Your task to perform on an android device: Clear all items from cart on bestbuy. Add usb-c to the cart on bestbuy Image 0: 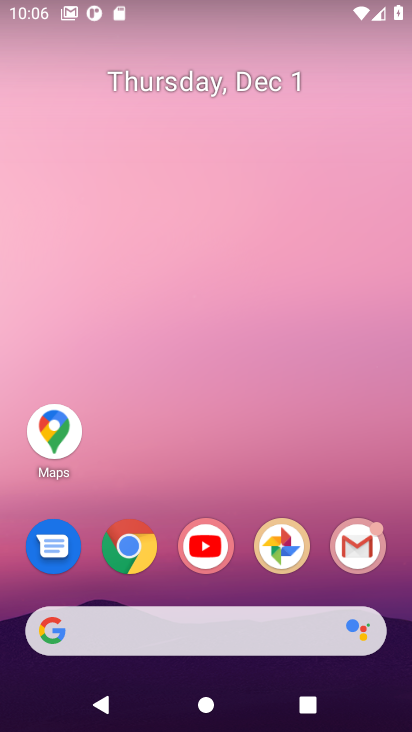
Step 0: click (134, 549)
Your task to perform on an android device: Clear all items from cart on bestbuy. Add usb-c to the cart on bestbuy Image 1: 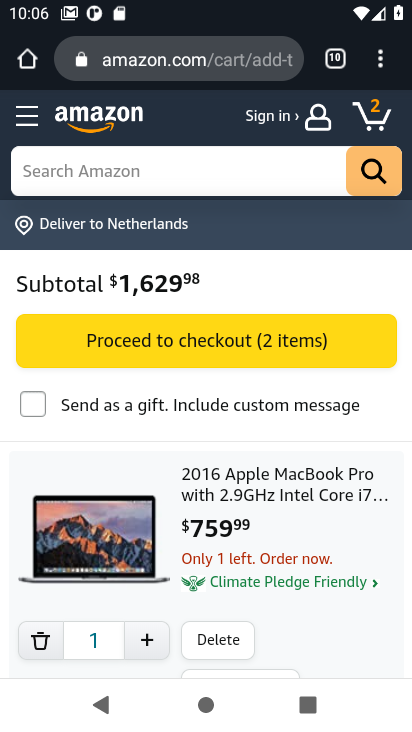
Step 1: click (191, 71)
Your task to perform on an android device: Clear all items from cart on bestbuy. Add usb-c to the cart on bestbuy Image 2: 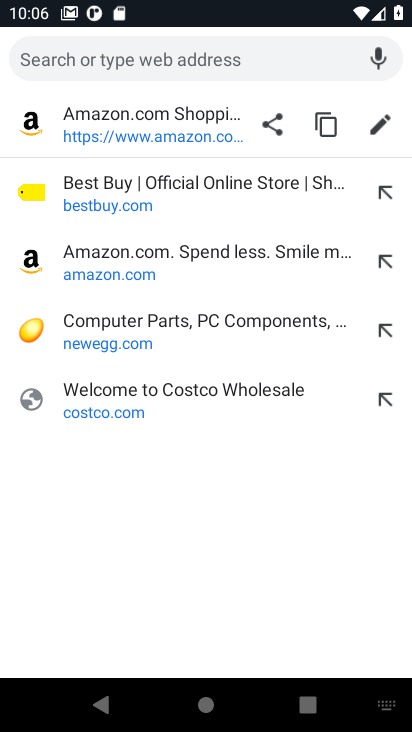
Step 2: click (87, 176)
Your task to perform on an android device: Clear all items from cart on bestbuy. Add usb-c to the cart on bestbuy Image 3: 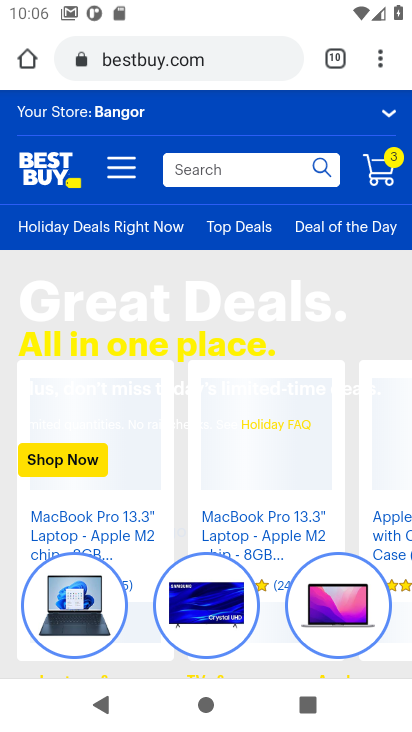
Step 3: click (378, 175)
Your task to perform on an android device: Clear all items from cart on bestbuy. Add usb-c to the cart on bestbuy Image 4: 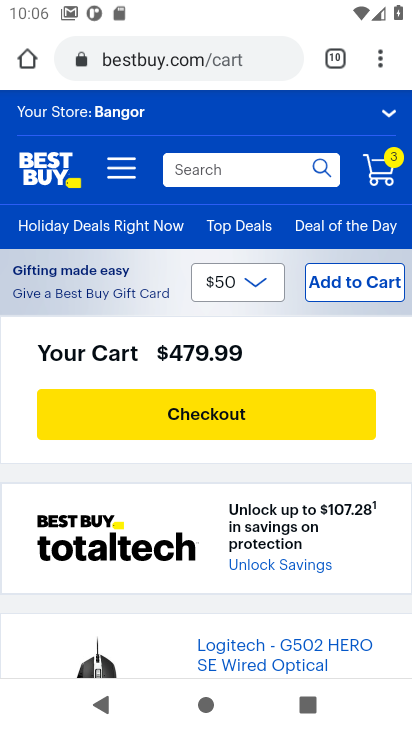
Step 4: drag from (278, 363) to (284, 124)
Your task to perform on an android device: Clear all items from cart on bestbuy. Add usb-c to the cart on bestbuy Image 5: 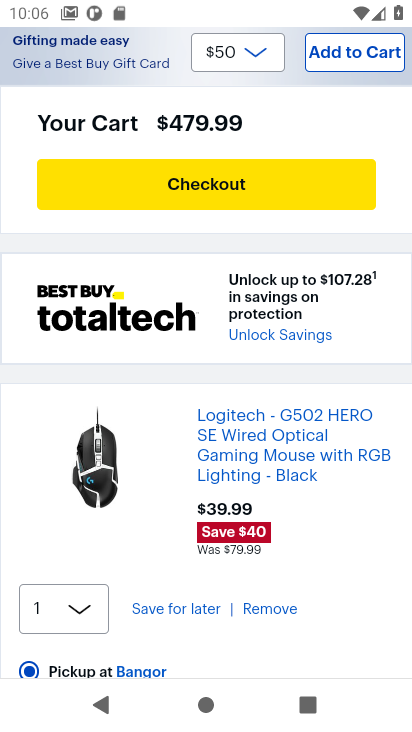
Step 5: drag from (343, 459) to (336, 270)
Your task to perform on an android device: Clear all items from cart on bestbuy. Add usb-c to the cart on bestbuy Image 6: 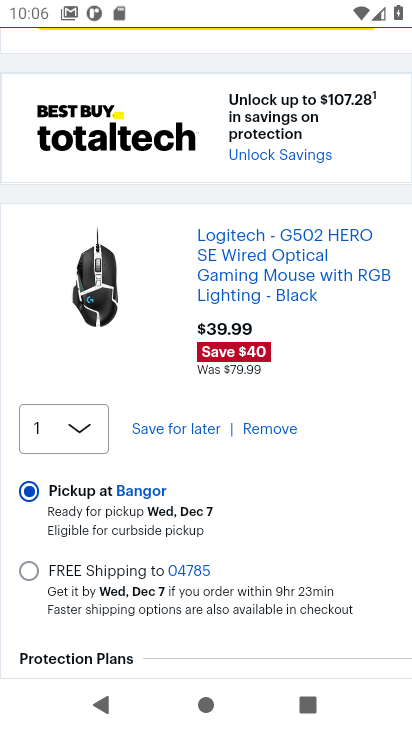
Step 6: click (260, 434)
Your task to perform on an android device: Clear all items from cart on bestbuy. Add usb-c to the cart on bestbuy Image 7: 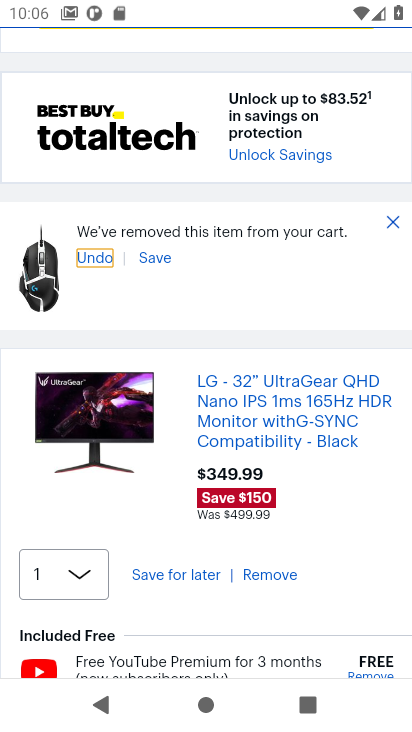
Step 7: click (255, 574)
Your task to perform on an android device: Clear all items from cart on bestbuy. Add usb-c to the cart on bestbuy Image 8: 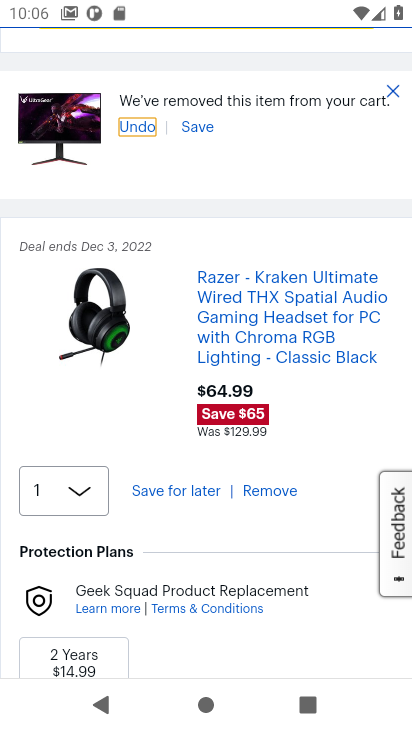
Step 8: click (283, 495)
Your task to perform on an android device: Clear all items from cart on bestbuy. Add usb-c to the cart on bestbuy Image 9: 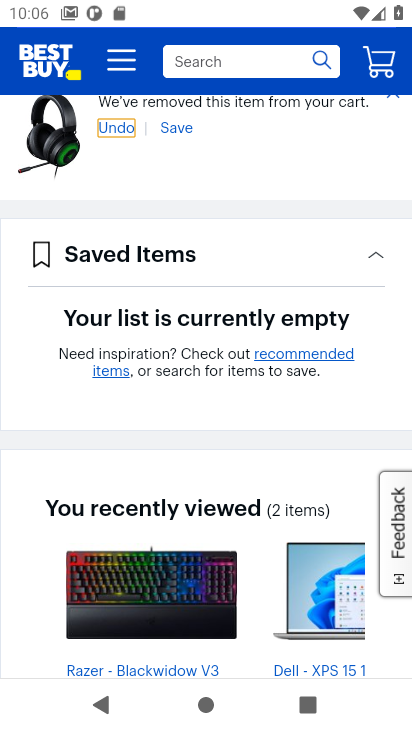
Step 9: drag from (276, 202) to (252, 365)
Your task to perform on an android device: Clear all items from cart on bestbuy. Add usb-c to the cart on bestbuy Image 10: 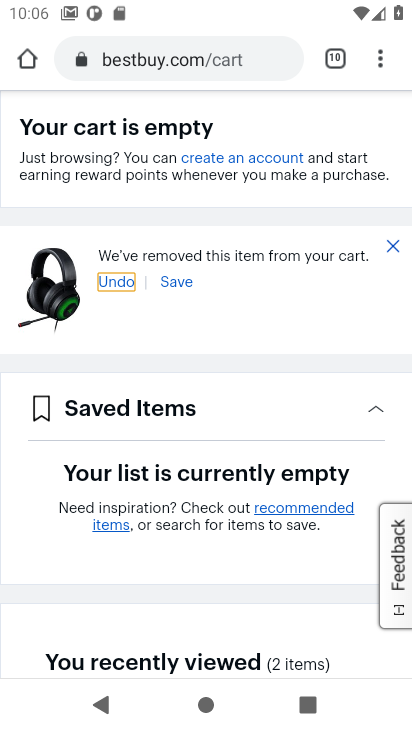
Step 10: drag from (173, 139) to (133, 324)
Your task to perform on an android device: Clear all items from cart on bestbuy. Add usb-c to the cart on bestbuy Image 11: 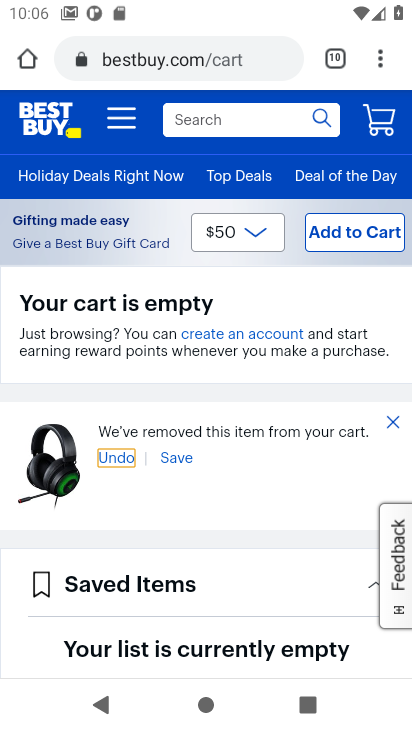
Step 11: click (195, 126)
Your task to perform on an android device: Clear all items from cart on bestbuy. Add usb-c to the cart on bestbuy Image 12: 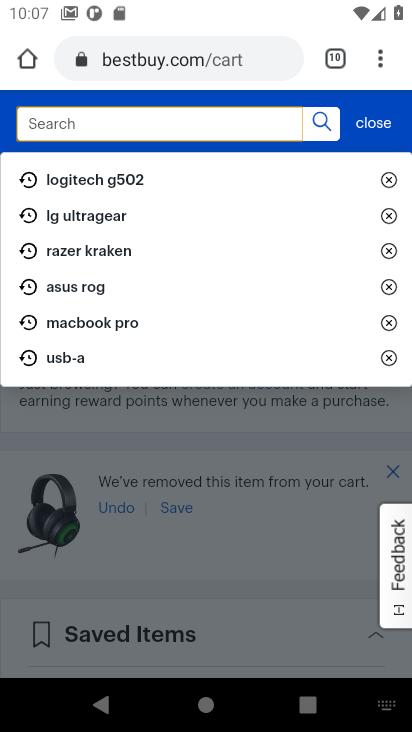
Step 12: type "usb-c"
Your task to perform on an android device: Clear all items from cart on bestbuy. Add usb-c to the cart on bestbuy Image 13: 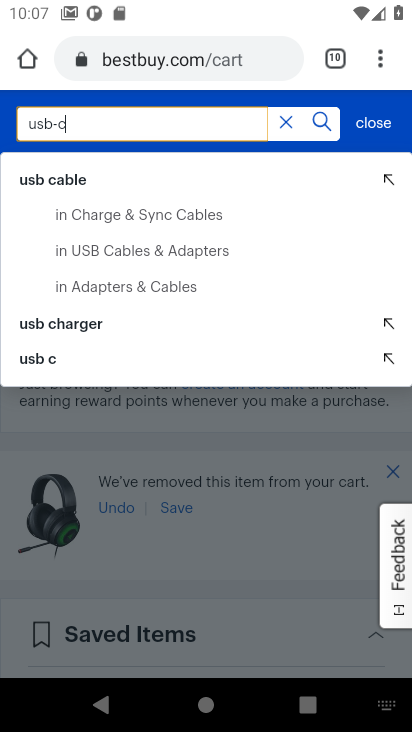
Step 13: click (45, 362)
Your task to perform on an android device: Clear all items from cart on bestbuy. Add usb-c to the cart on bestbuy Image 14: 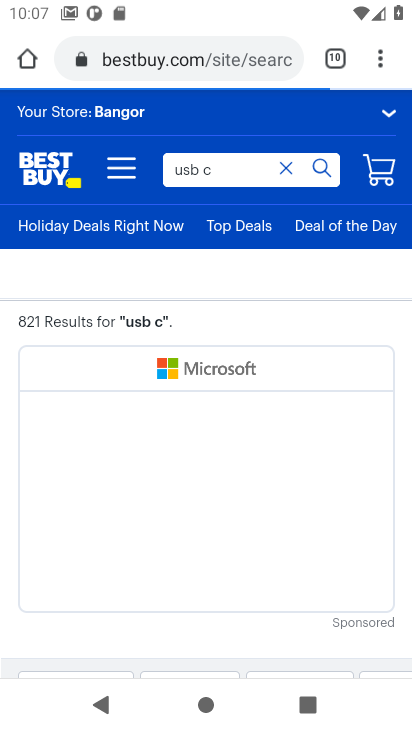
Step 14: drag from (161, 466) to (161, 211)
Your task to perform on an android device: Clear all items from cart on bestbuy. Add usb-c to the cart on bestbuy Image 15: 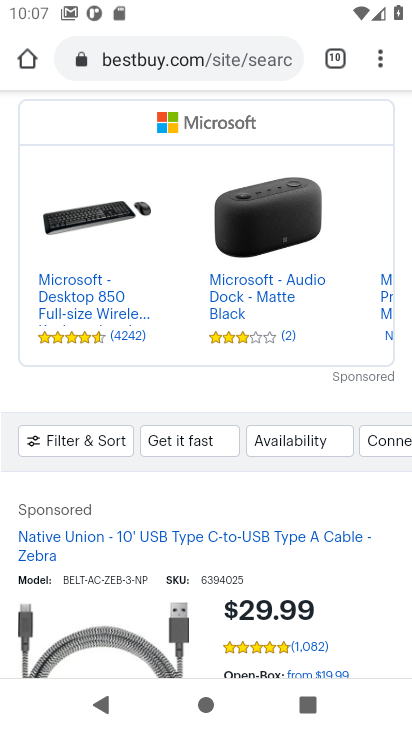
Step 15: drag from (195, 513) to (198, 317)
Your task to perform on an android device: Clear all items from cart on bestbuy. Add usb-c to the cart on bestbuy Image 16: 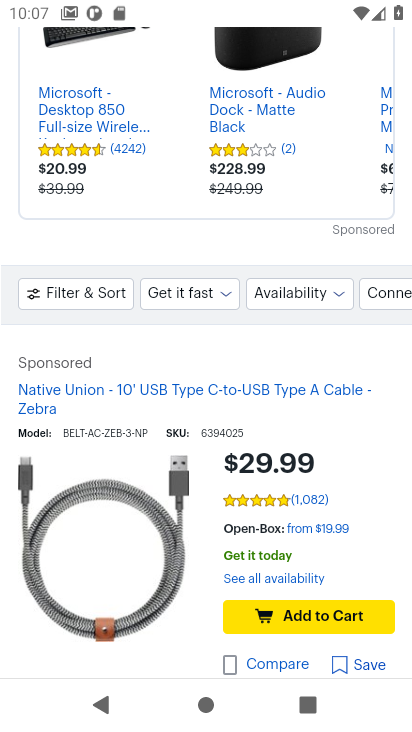
Step 16: click (282, 623)
Your task to perform on an android device: Clear all items from cart on bestbuy. Add usb-c to the cart on bestbuy Image 17: 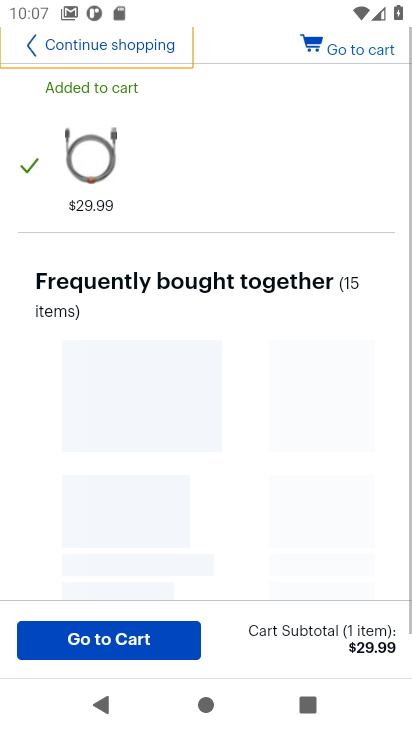
Step 17: task complete